Your task to perform on an android device: delete the emails in spam in the gmail app Image 0: 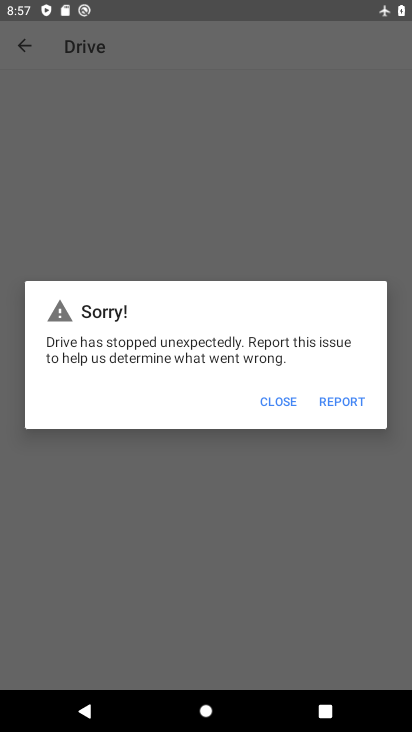
Step 0: press home button
Your task to perform on an android device: delete the emails in spam in the gmail app Image 1: 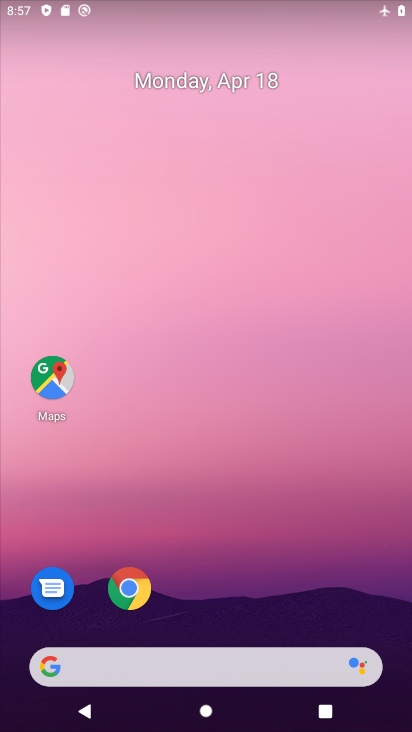
Step 1: drag from (272, 577) to (263, 215)
Your task to perform on an android device: delete the emails in spam in the gmail app Image 2: 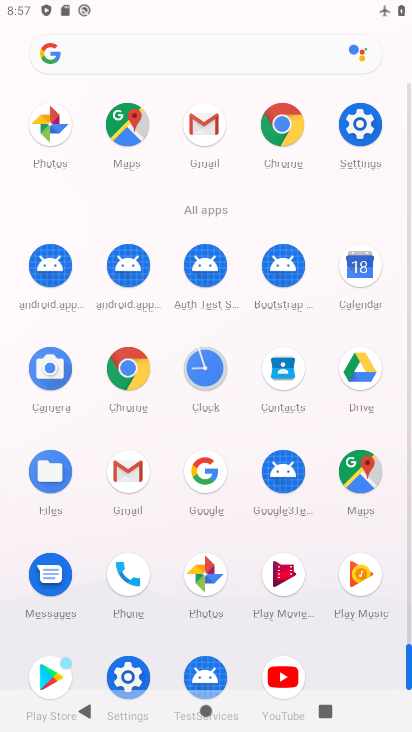
Step 2: click (196, 127)
Your task to perform on an android device: delete the emails in spam in the gmail app Image 3: 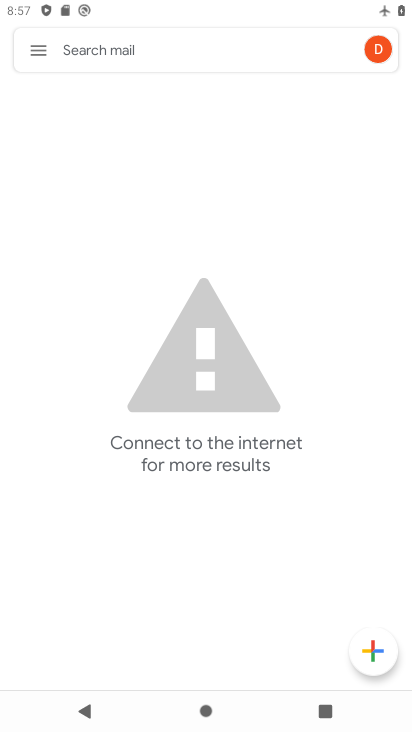
Step 3: click (38, 50)
Your task to perform on an android device: delete the emails in spam in the gmail app Image 4: 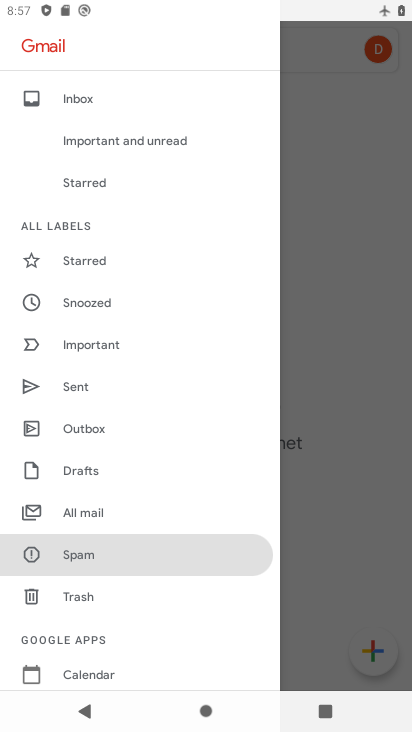
Step 4: click (82, 551)
Your task to perform on an android device: delete the emails in spam in the gmail app Image 5: 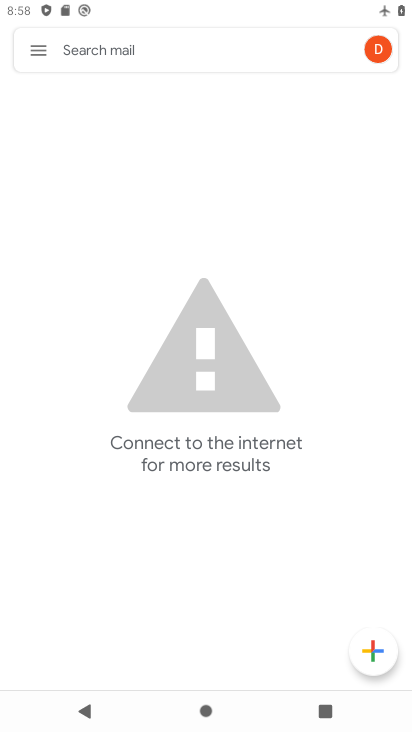
Step 5: task complete